Your task to perform on an android device: Go to settings Image 0: 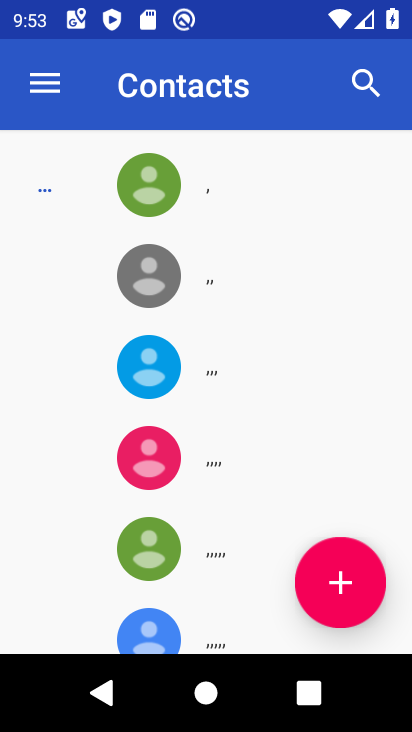
Step 0: press home button
Your task to perform on an android device: Go to settings Image 1: 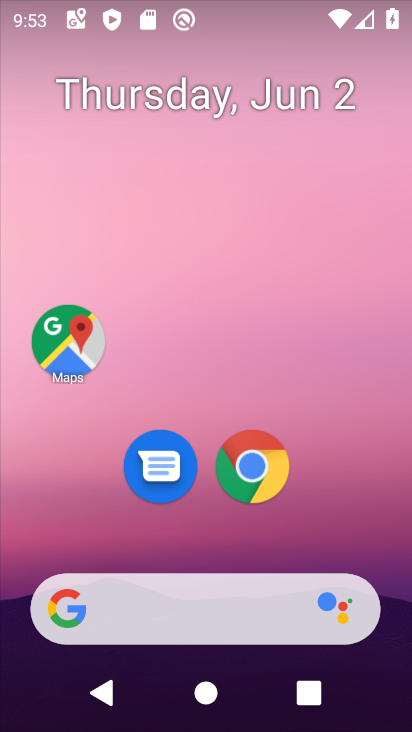
Step 1: drag from (204, 533) to (197, 68)
Your task to perform on an android device: Go to settings Image 2: 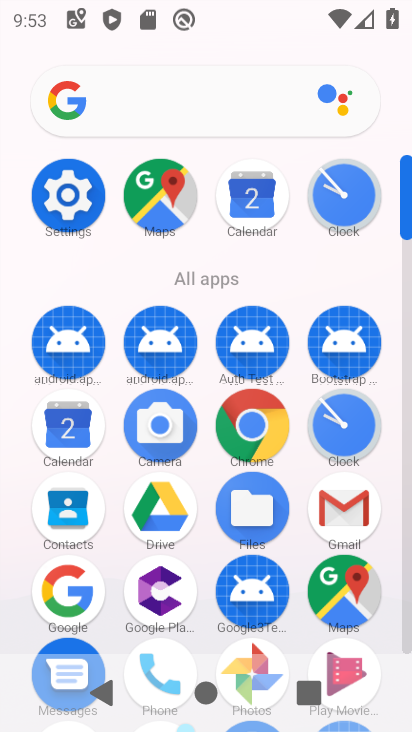
Step 2: click (77, 192)
Your task to perform on an android device: Go to settings Image 3: 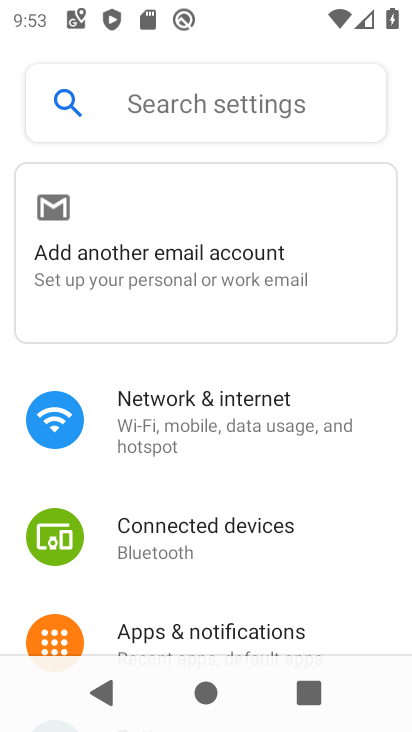
Step 3: task complete